Your task to perform on an android device: Open my contact list Image 0: 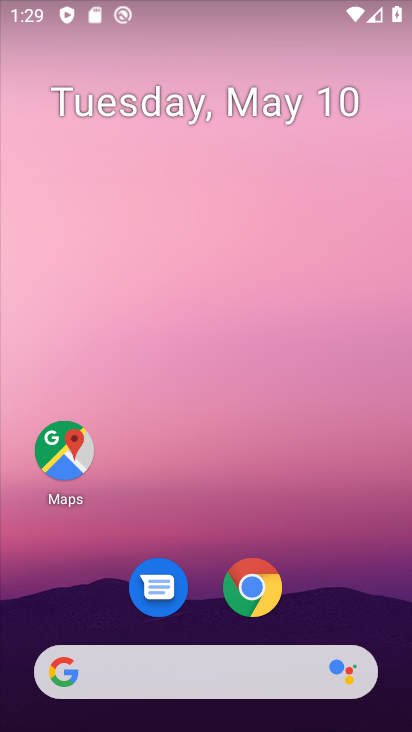
Step 0: drag from (156, 446) to (241, 136)
Your task to perform on an android device: Open my contact list Image 1: 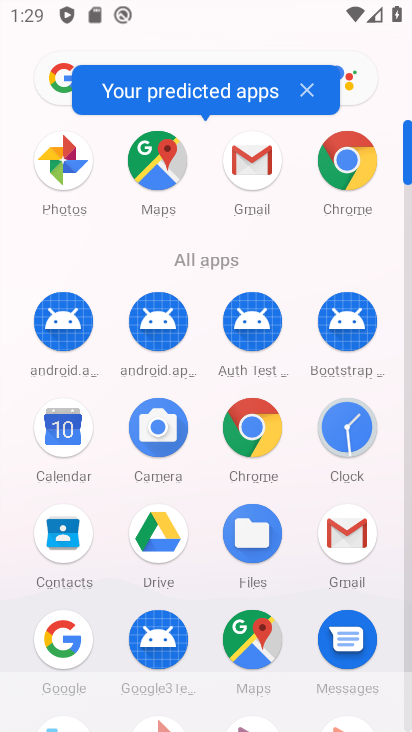
Step 1: click (62, 553)
Your task to perform on an android device: Open my contact list Image 2: 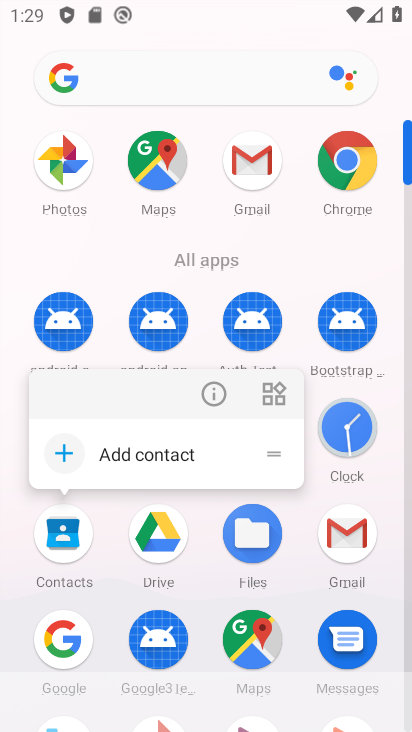
Step 2: click (64, 548)
Your task to perform on an android device: Open my contact list Image 3: 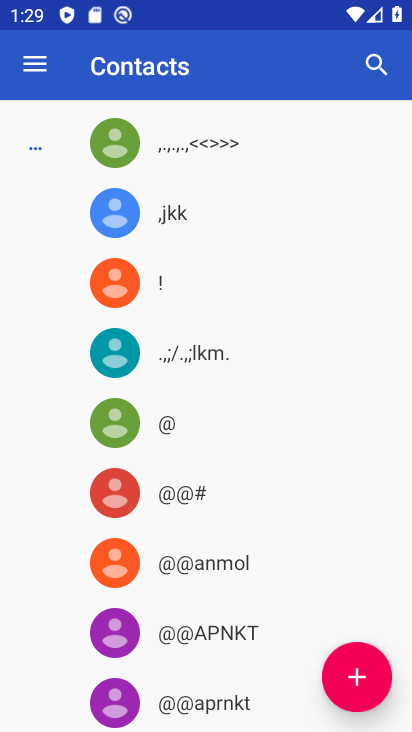
Step 3: task complete